Your task to perform on an android device: Open network settings Image 0: 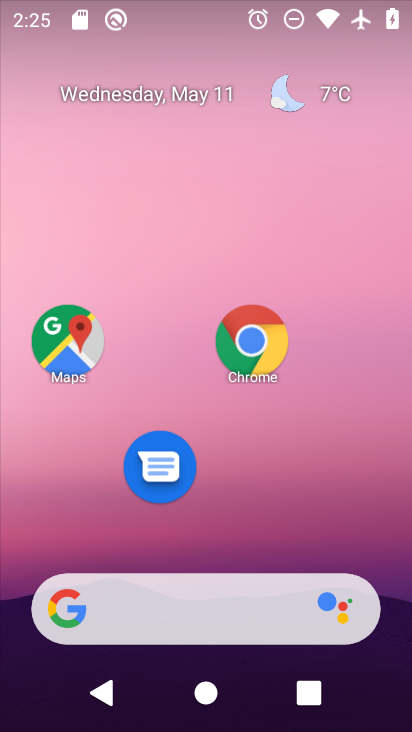
Step 0: drag from (264, 341) to (346, 15)
Your task to perform on an android device: Open network settings Image 1: 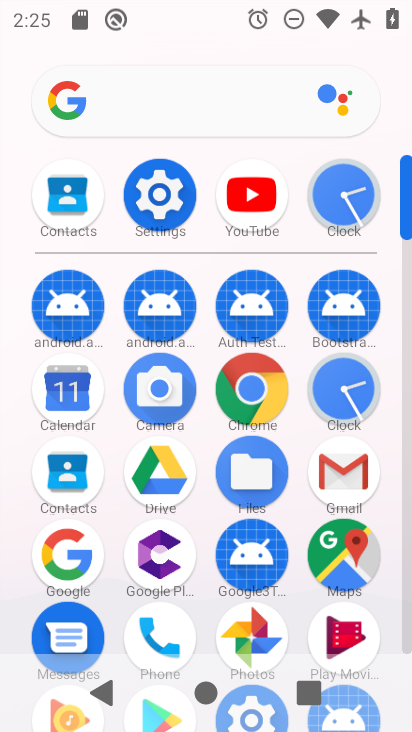
Step 1: click (169, 198)
Your task to perform on an android device: Open network settings Image 2: 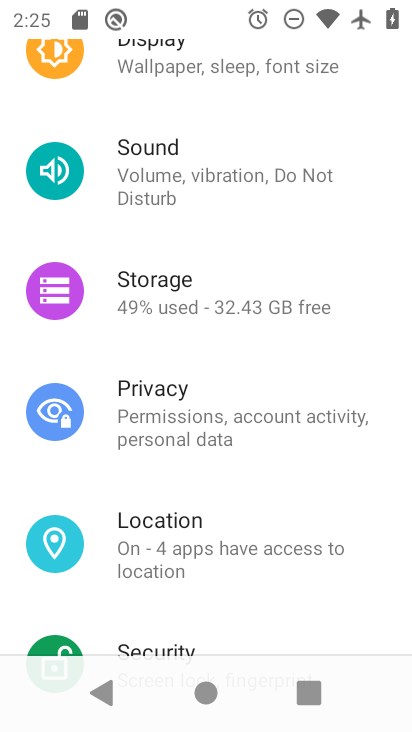
Step 2: drag from (297, 113) to (200, 597)
Your task to perform on an android device: Open network settings Image 3: 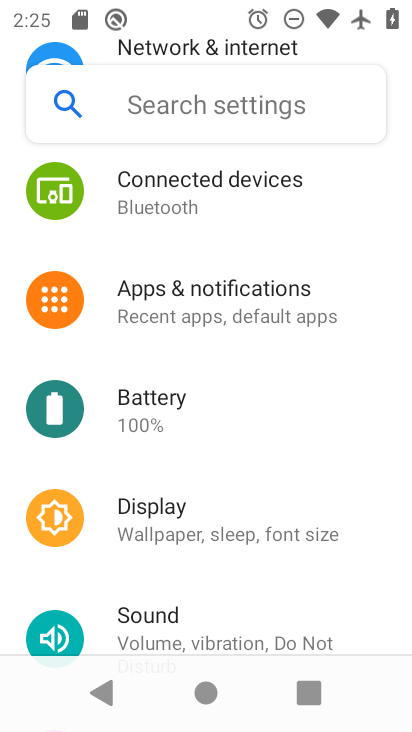
Step 3: drag from (329, 215) to (225, 636)
Your task to perform on an android device: Open network settings Image 4: 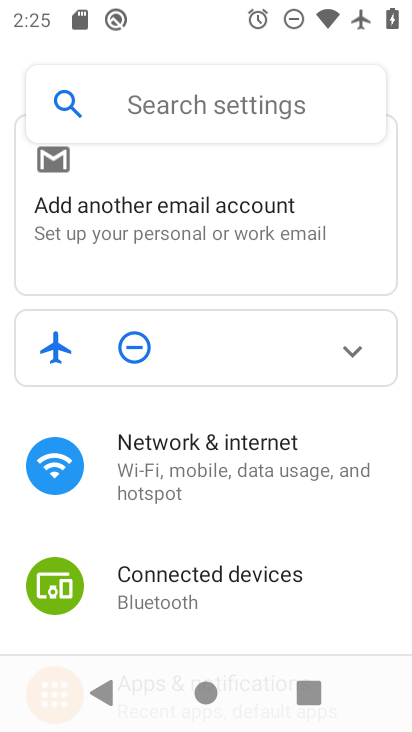
Step 4: click (233, 455)
Your task to perform on an android device: Open network settings Image 5: 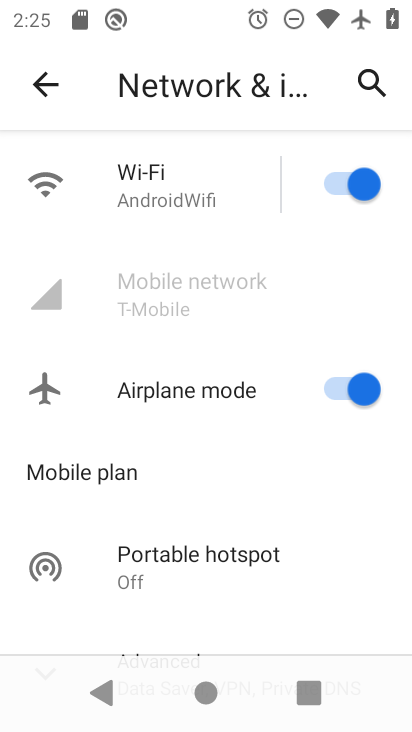
Step 5: task complete